Your task to perform on an android device: Open calendar and show me the fourth week of next month Image 0: 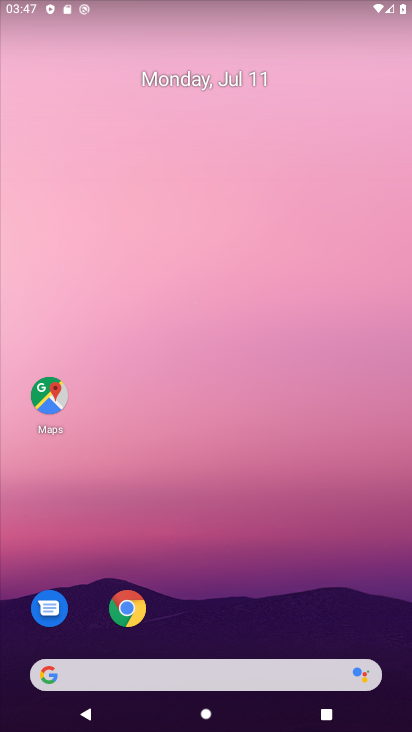
Step 0: drag from (262, 679) to (407, 379)
Your task to perform on an android device: Open calendar and show me the fourth week of next month Image 1: 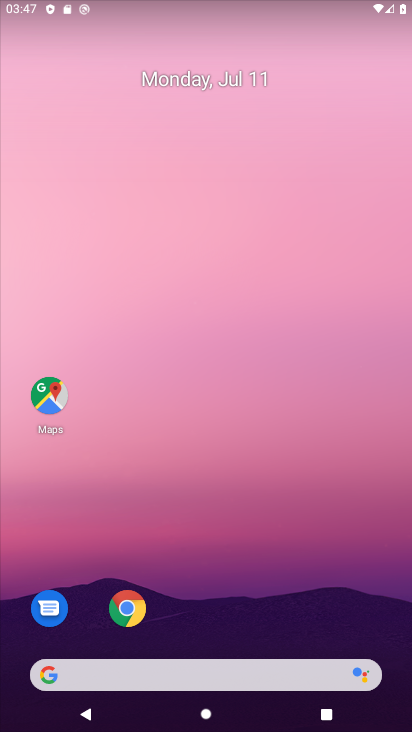
Step 1: drag from (270, 693) to (354, 0)
Your task to perform on an android device: Open calendar and show me the fourth week of next month Image 2: 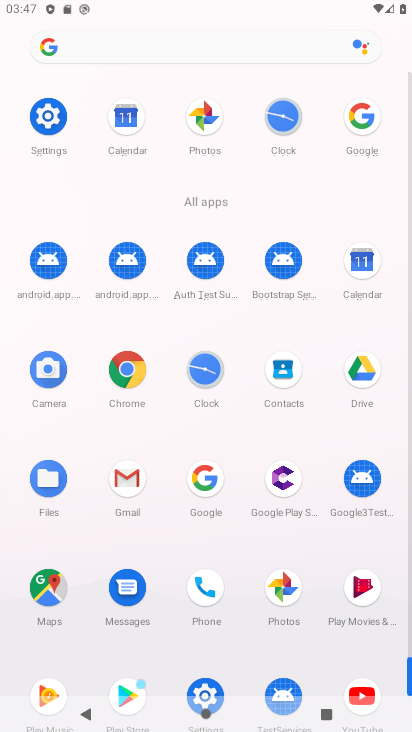
Step 2: click (359, 270)
Your task to perform on an android device: Open calendar and show me the fourth week of next month Image 3: 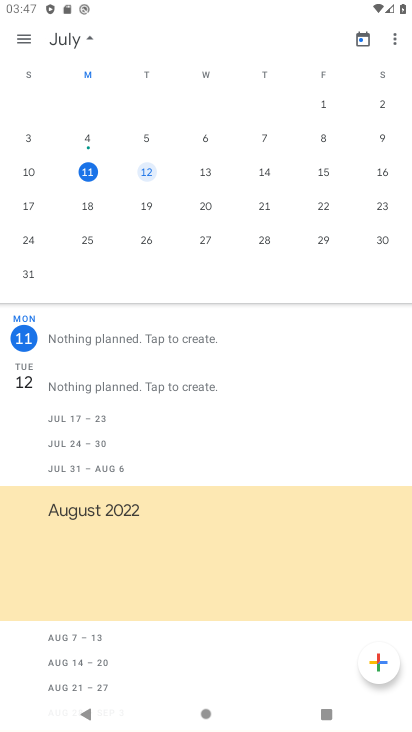
Step 3: drag from (342, 188) to (15, 218)
Your task to perform on an android device: Open calendar and show me the fourth week of next month Image 4: 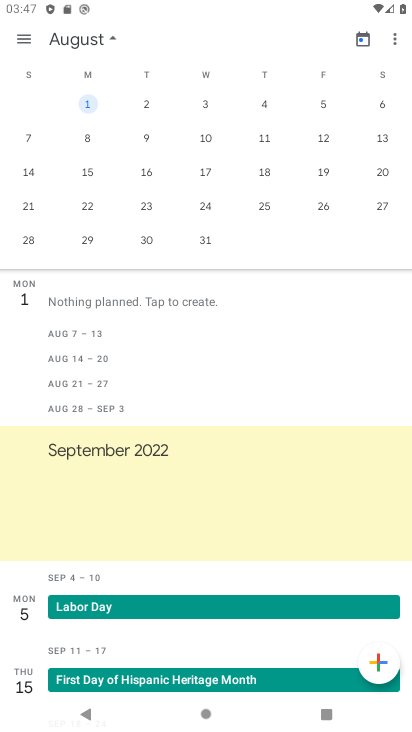
Step 4: click (23, 209)
Your task to perform on an android device: Open calendar and show me the fourth week of next month Image 5: 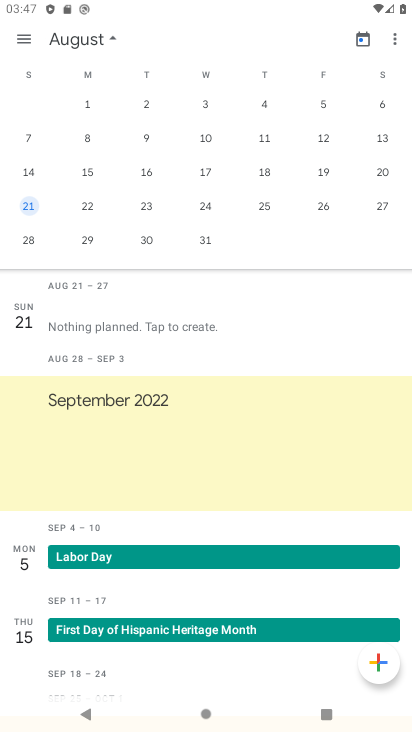
Step 5: task complete